Your task to perform on an android device: all mails in gmail Image 0: 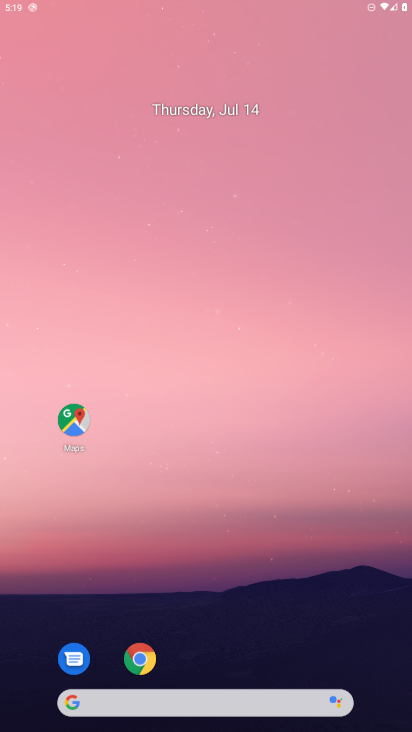
Step 0: press home button
Your task to perform on an android device: all mails in gmail Image 1: 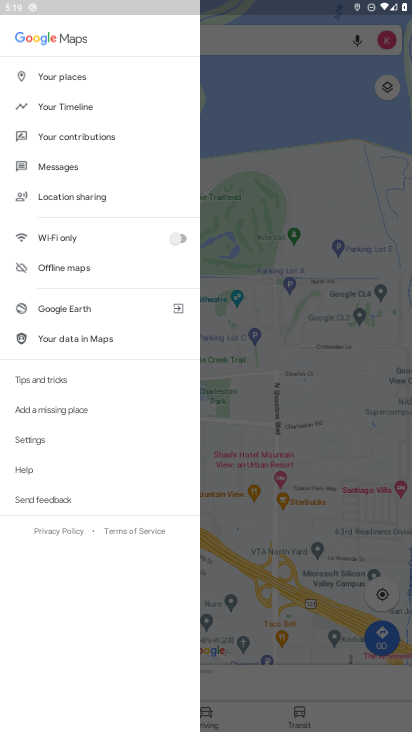
Step 1: drag from (213, 548) to (264, 74)
Your task to perform on an android device: all mails in gmail Image 2: 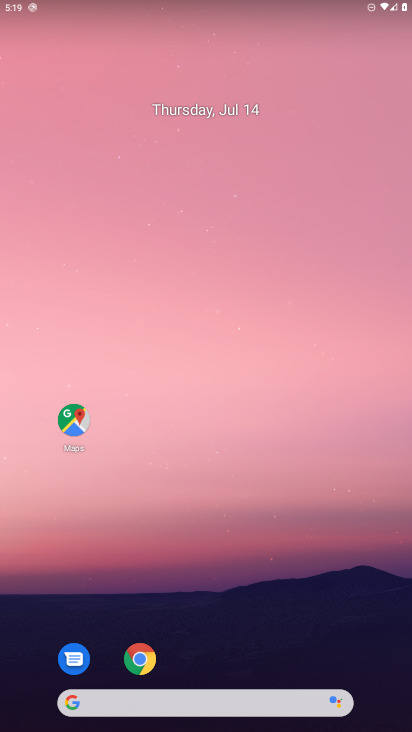
Step 2: drag from (206, 659) to (225, 67)
Your task to perform on an android device: all mails in gmail Image 3: 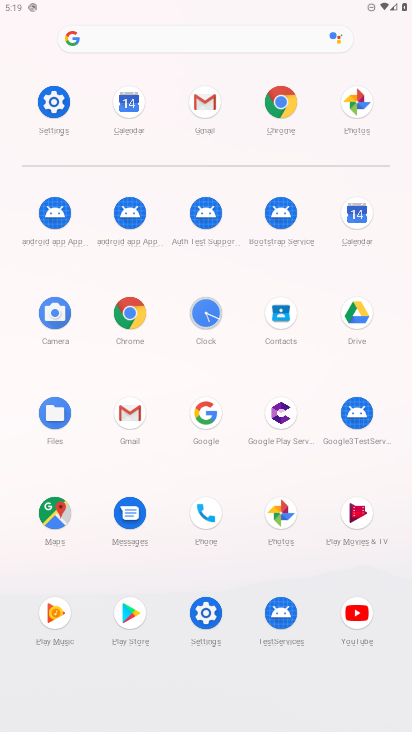
Step 3: click (207, 99)
Your task to perform on an android device: all mails in gmail Image 4: 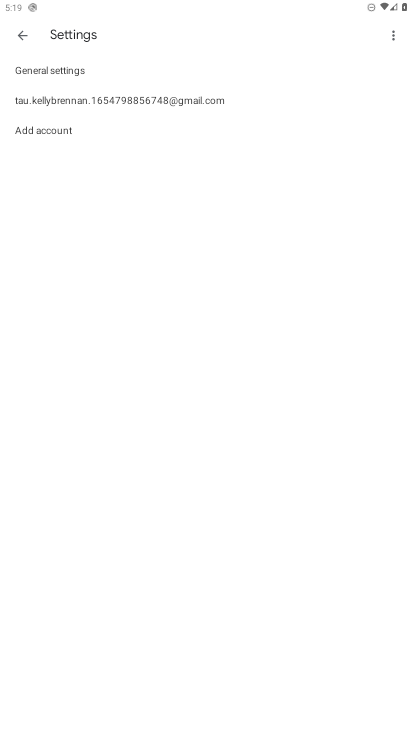
Step 4: click (16, 27)
Your task to perform on an android device: all mails in gmail Image 5: 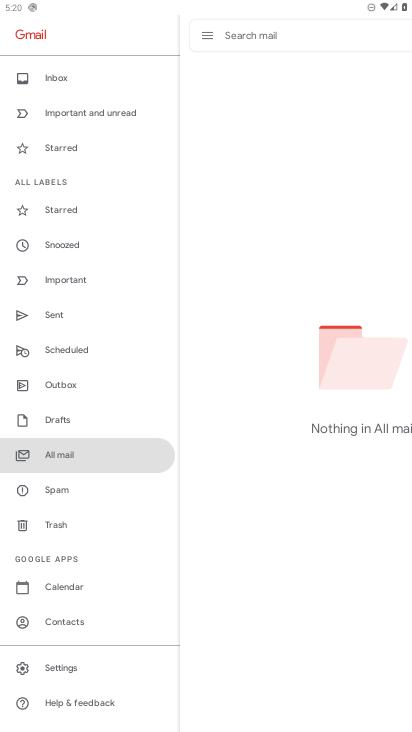
Step 5: click (68, 451)
Your task to perform on an android device: all mails in gmail Image 6: 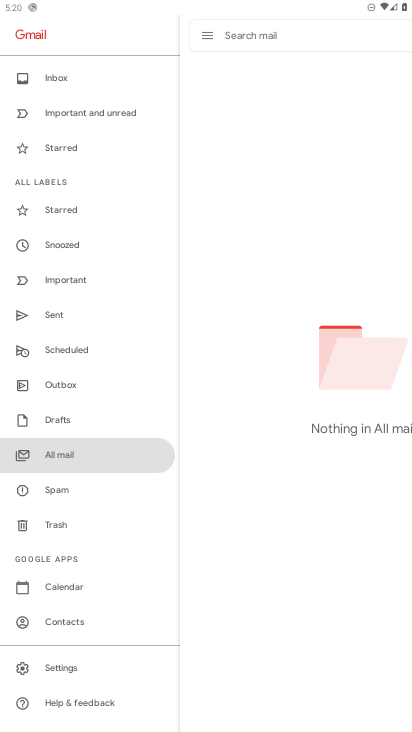
Step 6: task complete